Your task to perform on an android device: toggle show notifications on the lock screen Image 0: 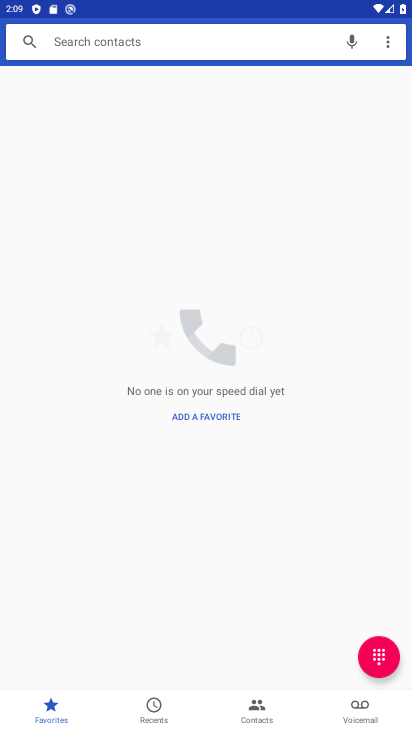
Step 0: press home button
Your task to perform on an android device: toggle show notifications on the lock screen Image 1: 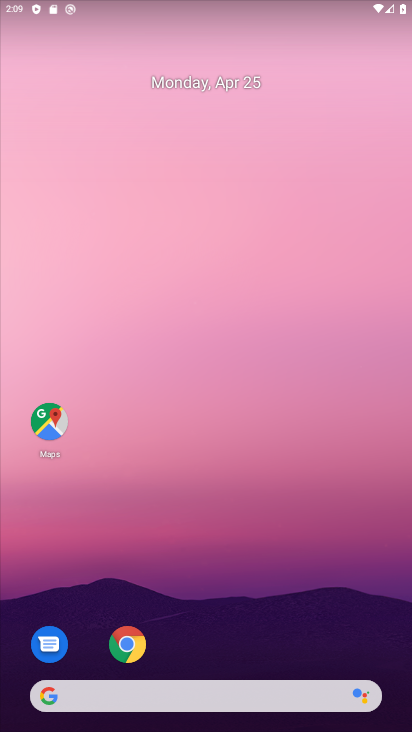
Step 1: drag from (245, 591) to (193, 222)
Your task to perform on an android device: toggle show notifications on the lock screen Image 2: 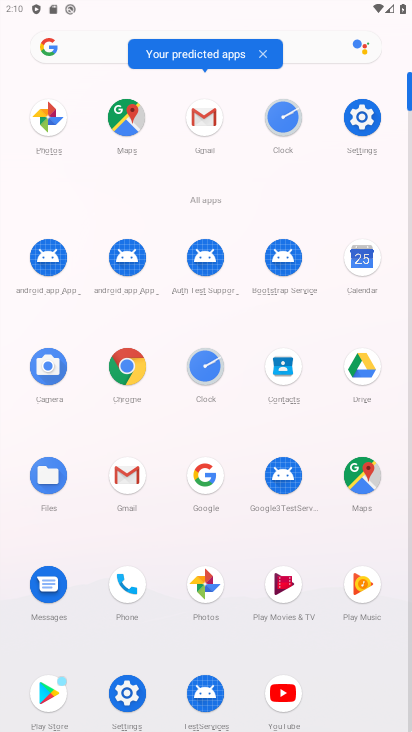
Step 2: click (359, 119)
Your task to perform on an android device: toggle show notifications on the lock screen Image 3: 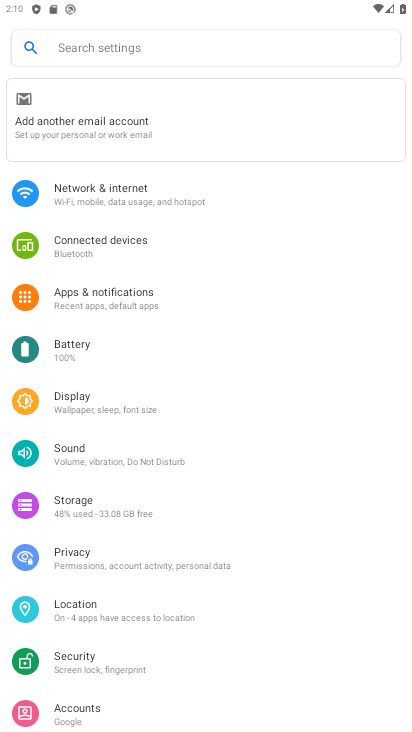
Step 3: click (227, 306)
Your task to perform on an android device: toggle show notifications on the lock screen Image 4: 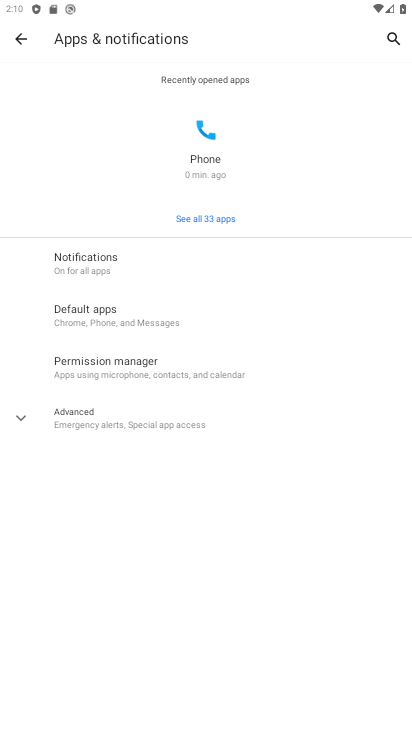
Step 4: click (198, 268)
Your task to perform on an android device: toggle show notifications on the lock screen Image 5: 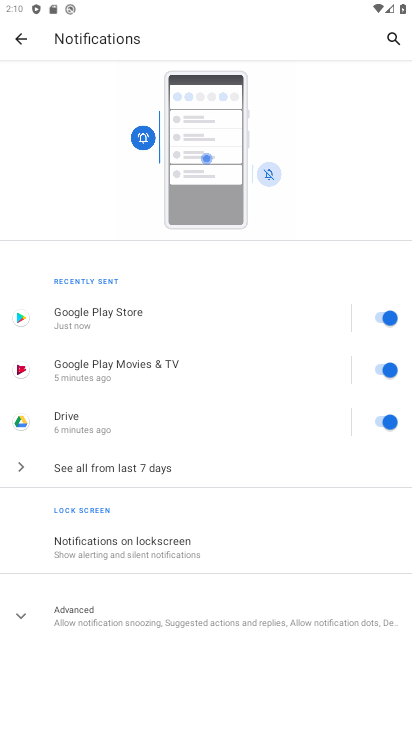
Step 5: click (162, 547)
Your task to perform on an android device: toggle show notifications on the lock screen Image 6: 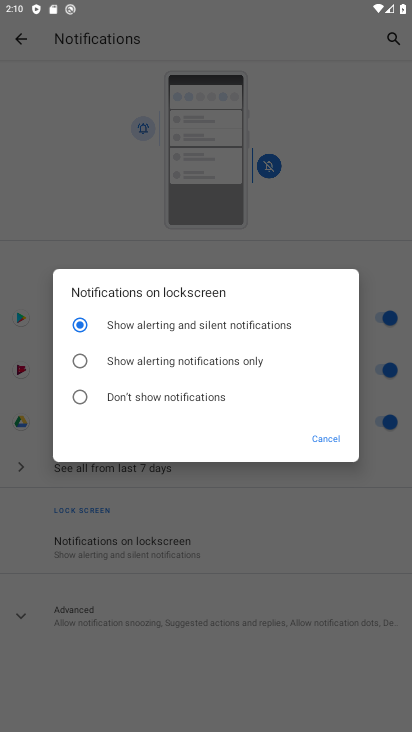
Step 6: click (206, 370)
Your task to perform on an android device: toggle show notifications on the lock screen Image 7: 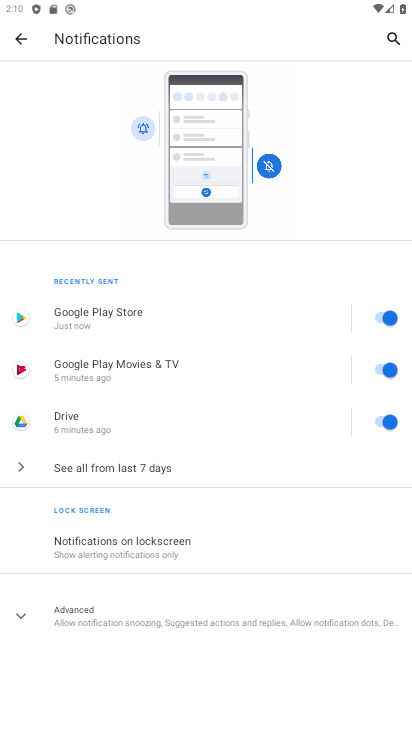
Step 7: task complete